Your task to perform on an android device: turn on wifi Image 0: 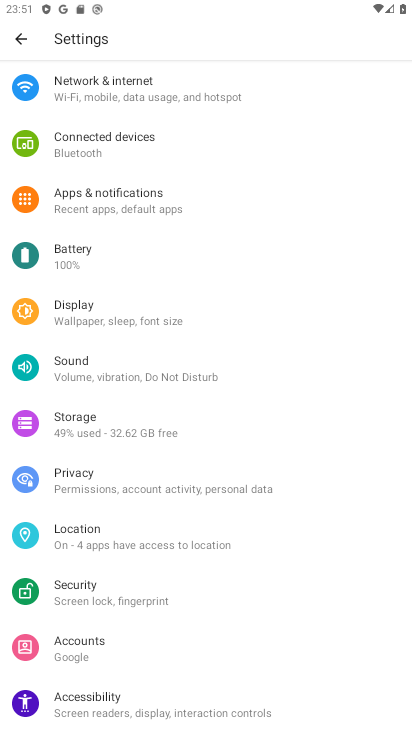
Step 0: drag from (174, 190) to (169, 466)
Your task to perform on an android device: turn on wifi Image 1: 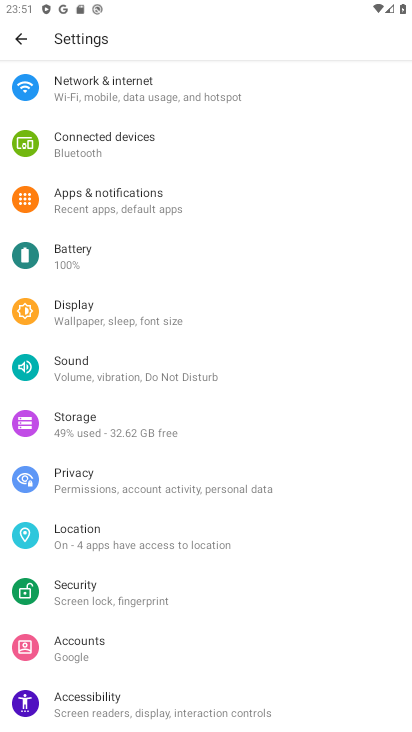
Step 1: click (101, 90)
Your task to perform on an android device: turn on wifi Image 2: 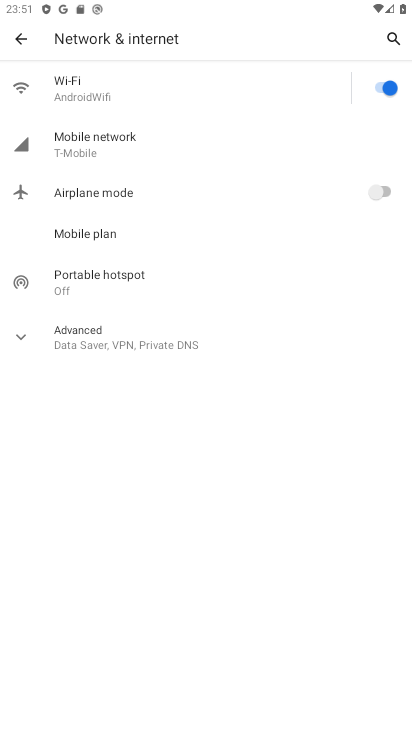
Step 2: task complete